Your task to perform on an android device: set the stopwatch Image 0: 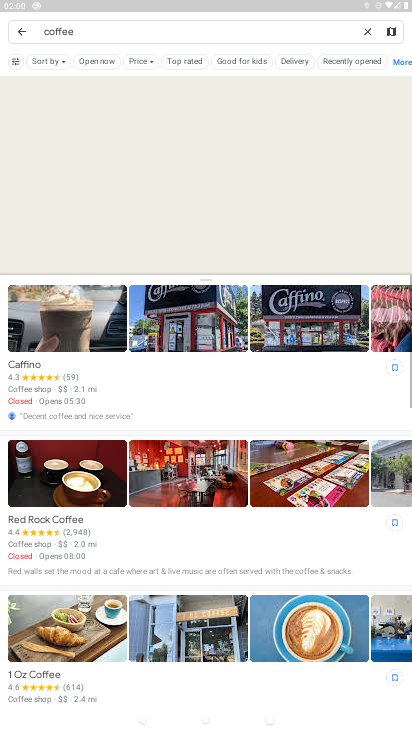
Step 0: press home button
Your task to perform on an android device: set the stopwatch Image 1: 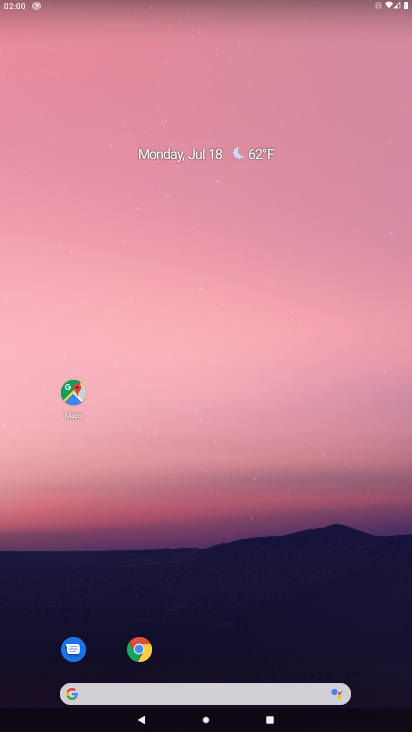
Step 1: drag from (63, 679) to (96, 3)
Your task to perform on an android device: set the stopwatch Image 2: 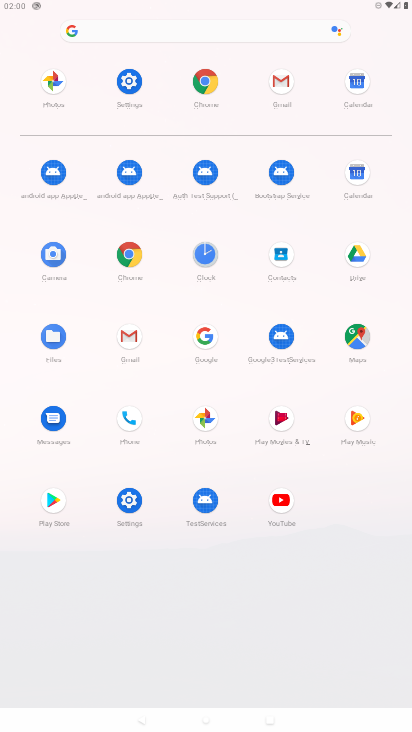
Step 2: click (223, 257)
Your task to perform on an android device: set the stopwatch Image 3: 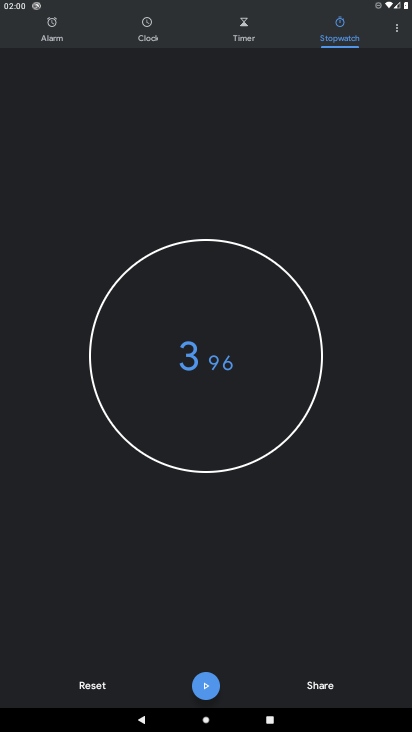
Step 3: click (185, 354)
Your task to perform on an android device: set the stopwatch Image 4: 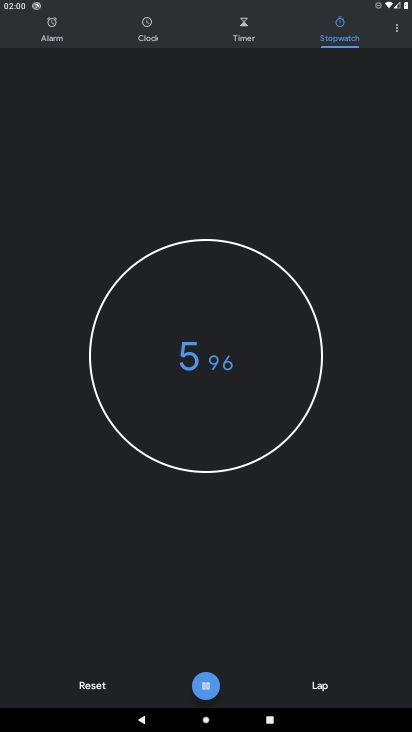
Step 4: click (170, 353)
Your task to perform on an android device: set the stopwatch Image 5: 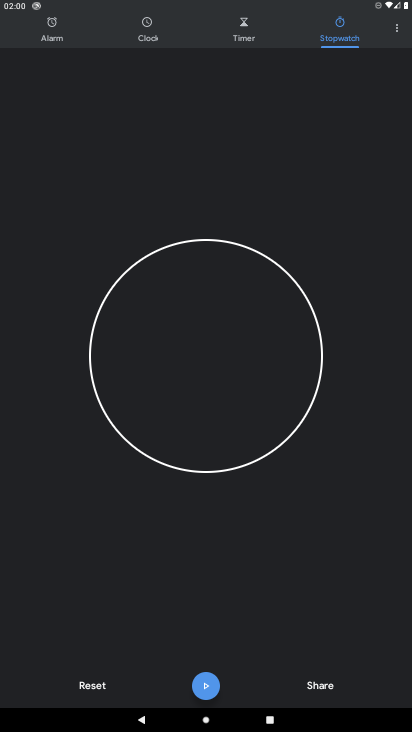
Step 5: task complete